Your task to perform on an android device: open a bookmark in the chrome app Image 0: 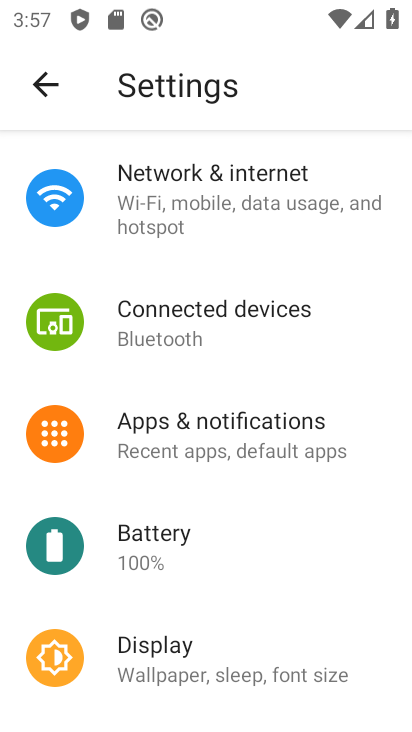
Step 0: press home button
Your task to perform on an android device: open a bookmark in the chrome app Image 1: 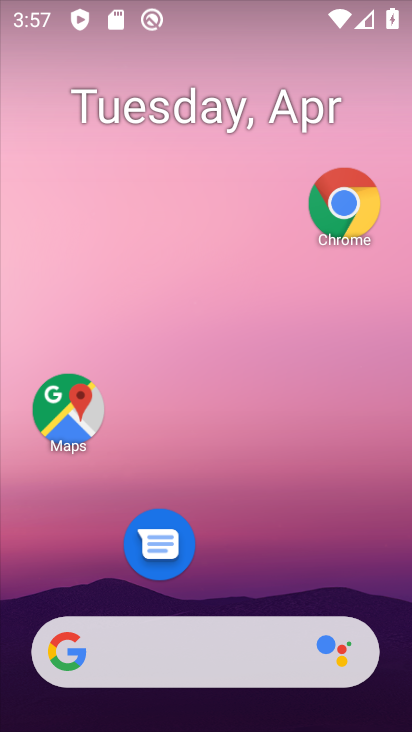
Step 1: click (330, 223)
Your task to perform on an android device: open a bookmark in the chrome app Image 2: 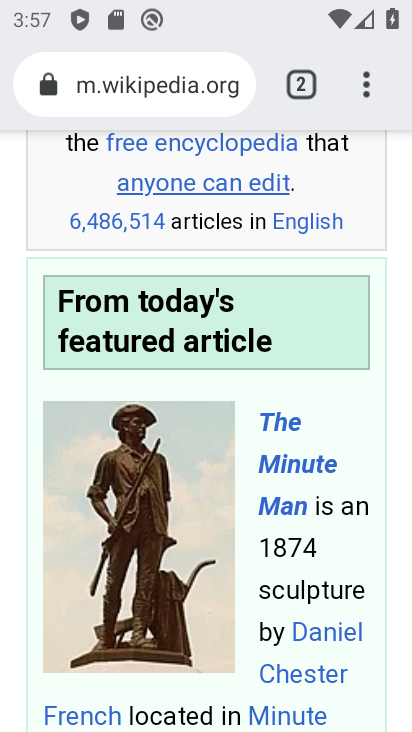
Step 2: click (365, 77)
Your task to perform on an android device: open a bookmark in the chrome app Image 3: 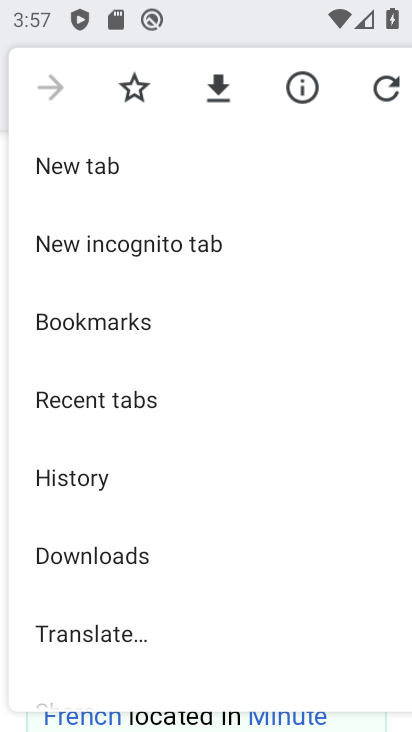
Step 3: click (124, 328)
Your task to perform on an android device: open a bookmark in the chrome app Image 4: 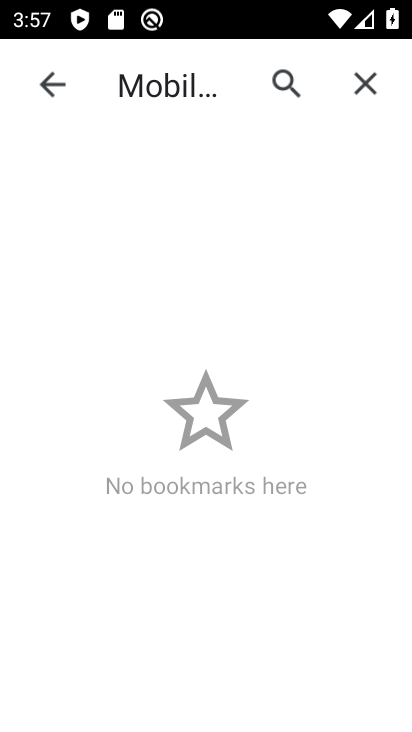
Step 4: click (52, 79)
Your task to perform on an android device: open a bookmark in the chrome app Image 5: 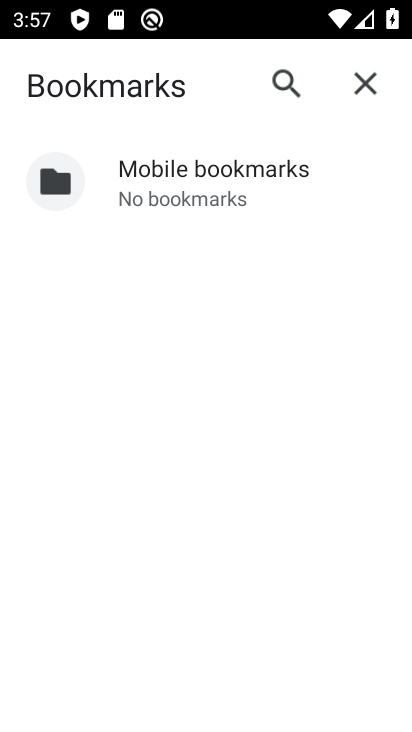
Step 5: click (368, 79)
Your task to perform on an android device: open a bookmark in the chrome app Image 6: 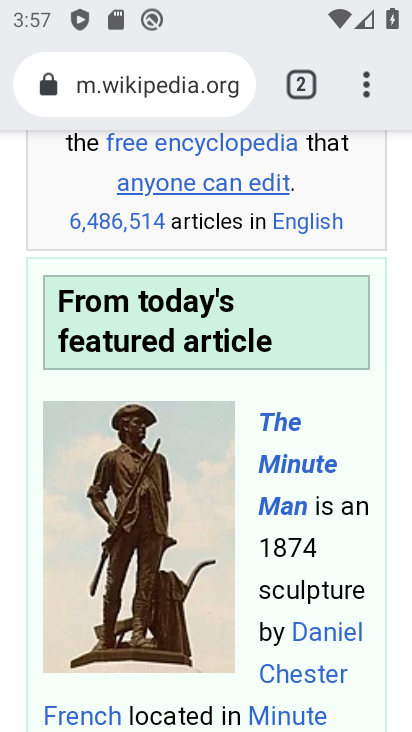
Step 6: click (300, 88)
Your task to perform on an android device: open a bookmark in the chrome app Image 7: 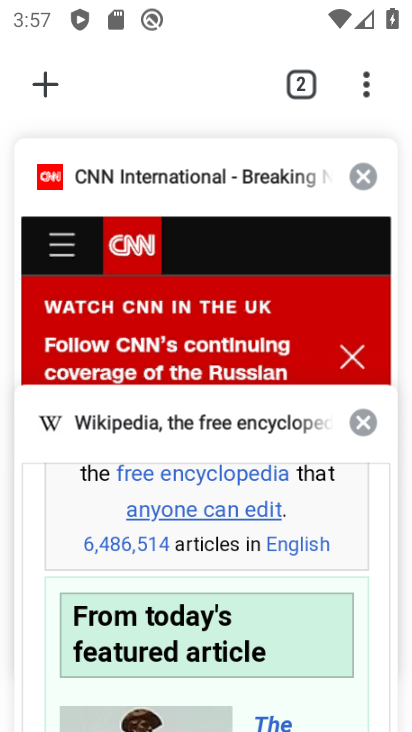
Step 7: click (42, 79)
Your task to perform on an android device: open a bookmark in the chrome app Image 8: 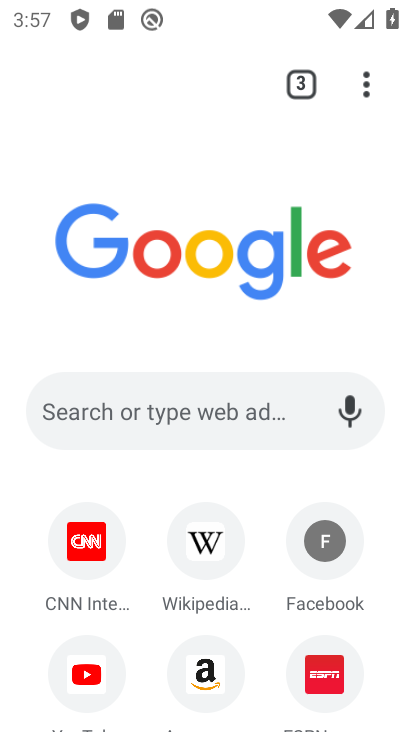
Step 8: click (316, 683)
Your task to perform on an android device: open a bookmark in the chrome app Image 9: 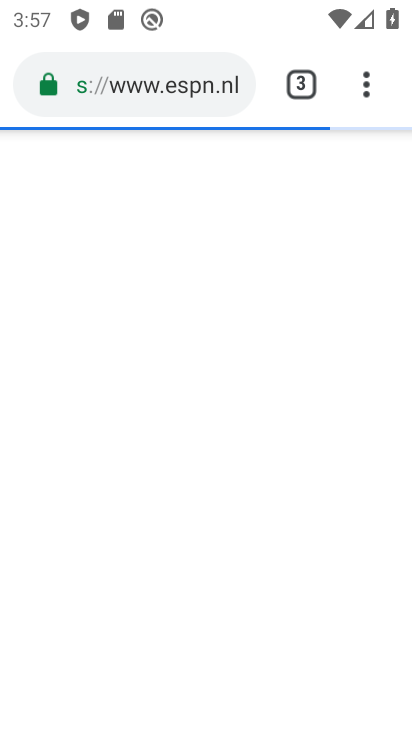
Step 9: task complete